Your task to perform on an android device: check out phone information Image 0: 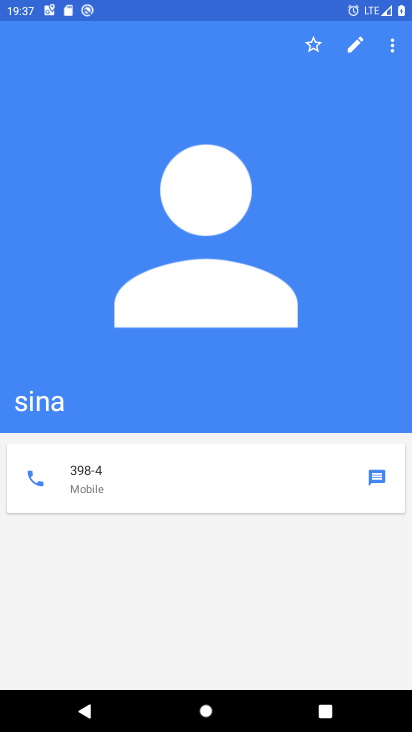
Step 0: press home button
Your task to perform on an android device: check out phone information Image 1: 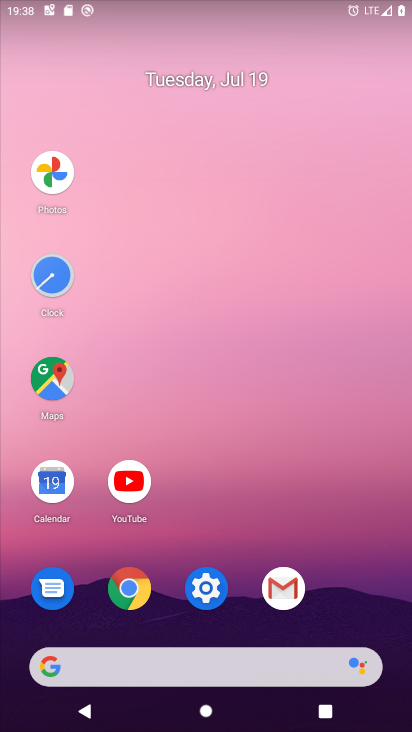
Step 1: click (206, 578)
Your task to perform on an android device: check out phone information Image 2: 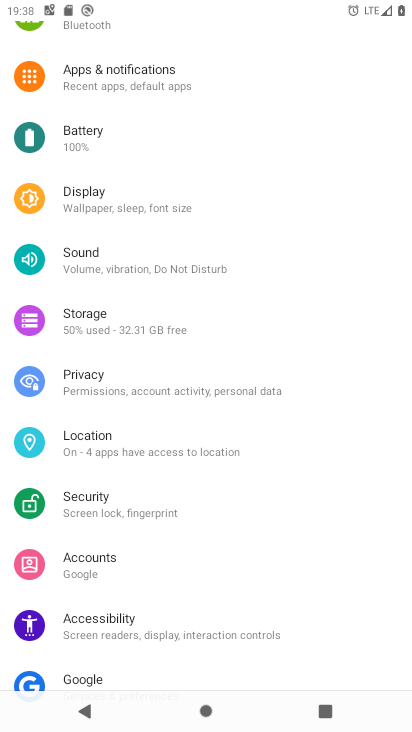
Step 2: drag from (257, 620) to (241, 275)
Your task to perform on an android device: check out phone information Image 3: 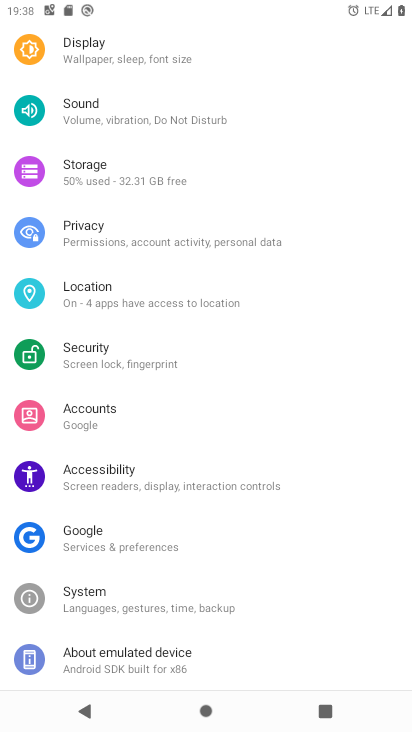
Step 3: click (156, 656)
Your task to perform on an android device: check out phone information Image 4: 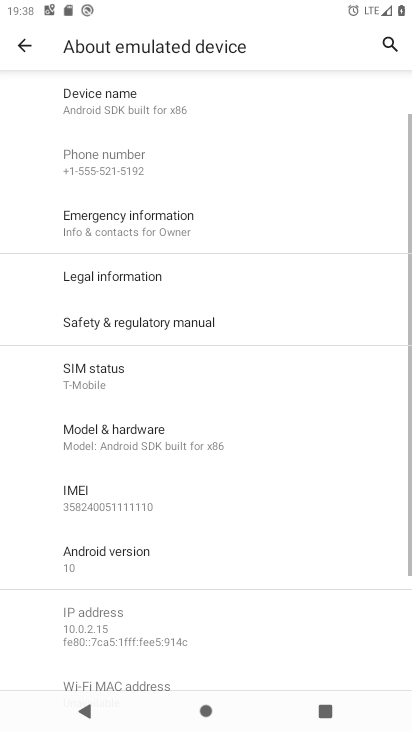
Step 4: task complete